Your task to perform on an android device: Go to calendar. Show me events next week Image 0: 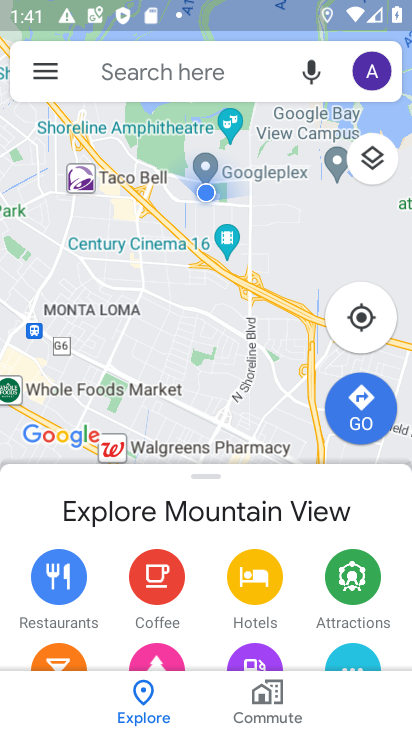
Step 0: press home button
Your task to perform on an android device: Go to calendar. Show me events next week Image 1: 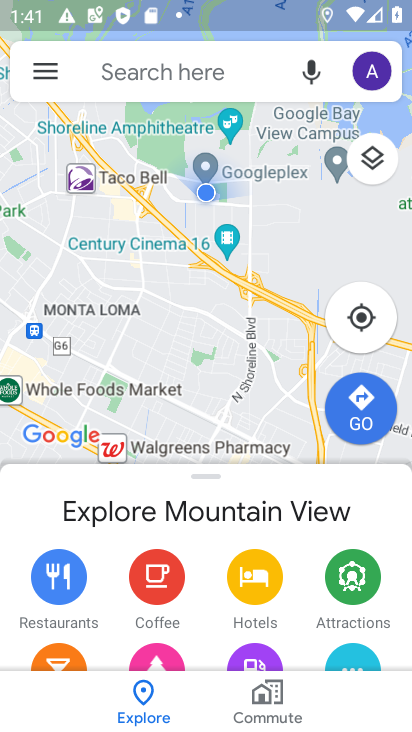
Step 1: press home button
Your task to perform on an android device: Go to calendar. Show me events next week Image 2: 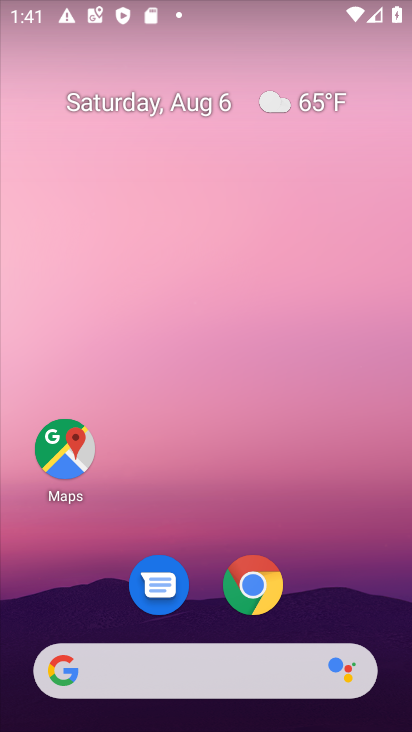
Step 2: drag from (199, 520) to (263, 0)
Your task to perform on an android device: Go to calendar. Show me events next week Image 3: 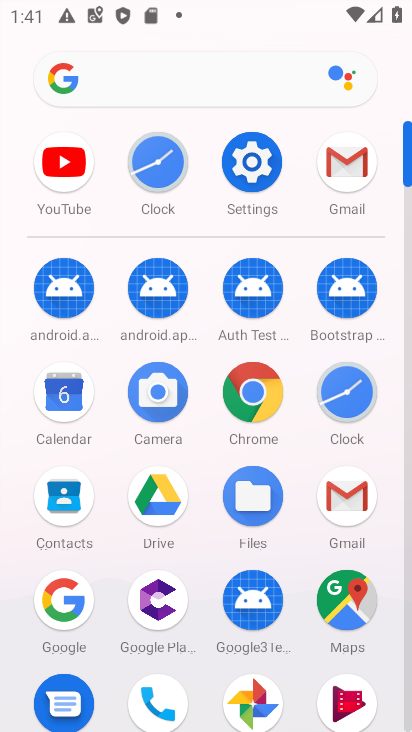
Step 3: click (76, 383)
Your task to perform on an android device: Go to calendar. Show me events next week Image 4: 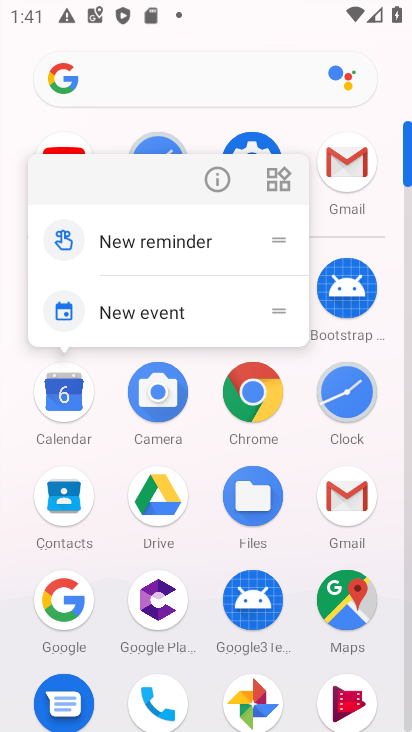
Step 4: click (66, 399)
Your task to perform on an android device: Go to calendar. Show me events next week Image 5: 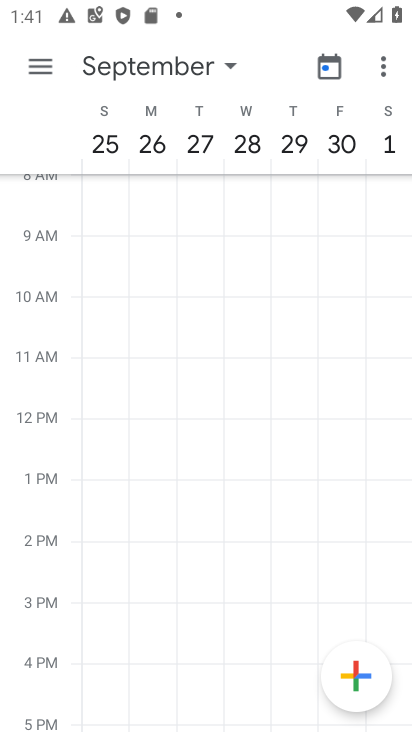
Step 5: click (42, 67)
Your task to perform on an android device: Go to calendar. Show me events next week Image 6: 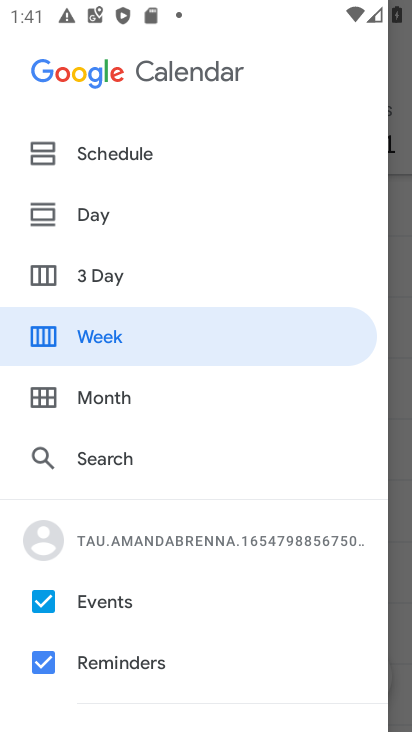
Step 6: click (50, 392)
Your task to perform on an android device: Go to calendar. Show me events next week Image 7: 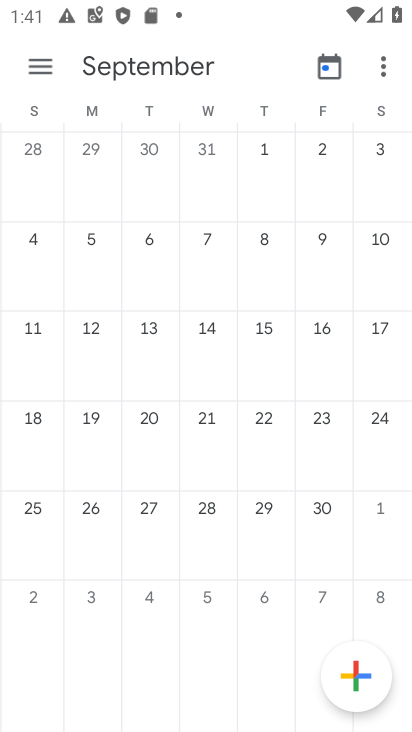
Step 7: drag from (98, 362) to (405, 320)
Your task to perform on an android device: Go to calendar. Show me events next week Image 8: 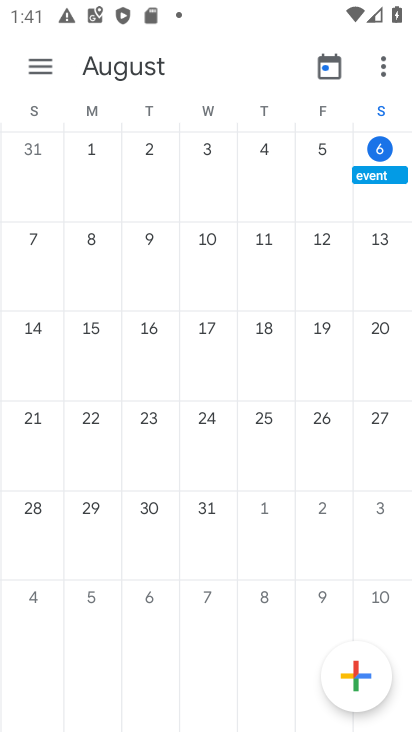
Step 8: click (31, 238)
Your task to perform on an android device: Go to calendar. Show me events next week Image 9: 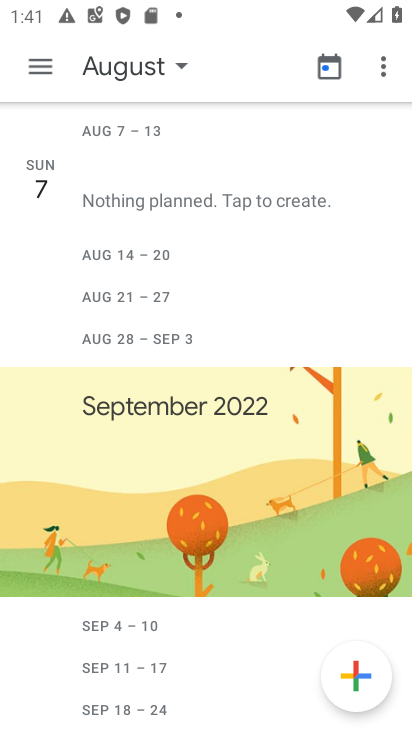
Step 9: click (36, 68)
Your task to perform on an android device: Go to calendar. Show me events next week Image 10: 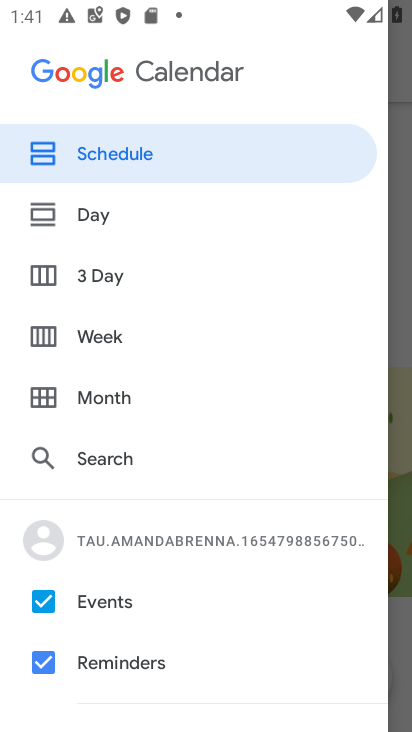
Step 10: click (44, 328)
Your task to perform on an android device: Go to calendar. Show me events next week Image 11: 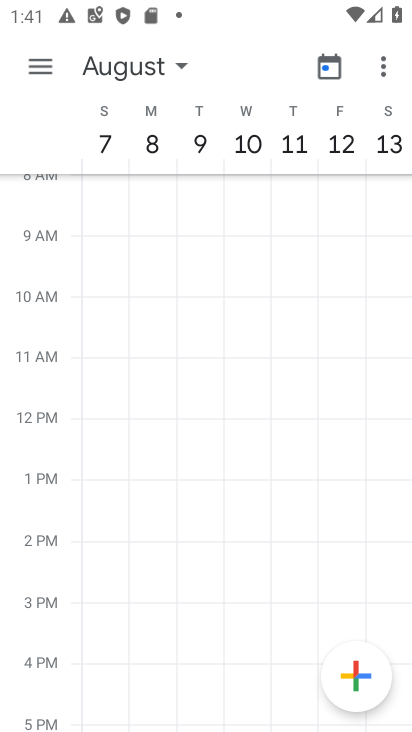
Step 11: task complete